Your task to perform on an android device: find snoozed emails in the gmail app Image 0: 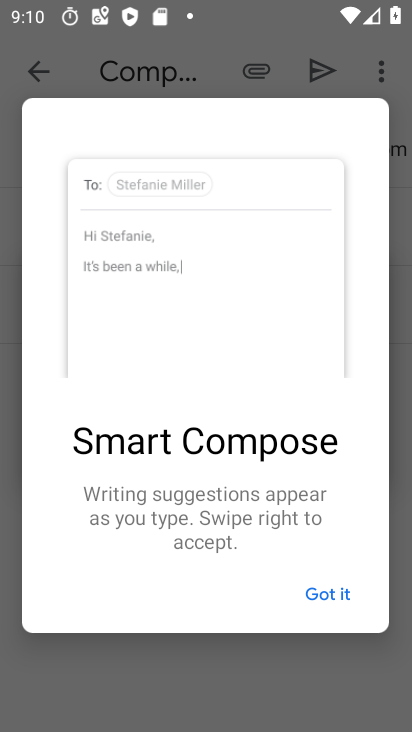
Step 0: press home button
Your task to perform on an android device: find snoozed emails in the gmail app Image 1: 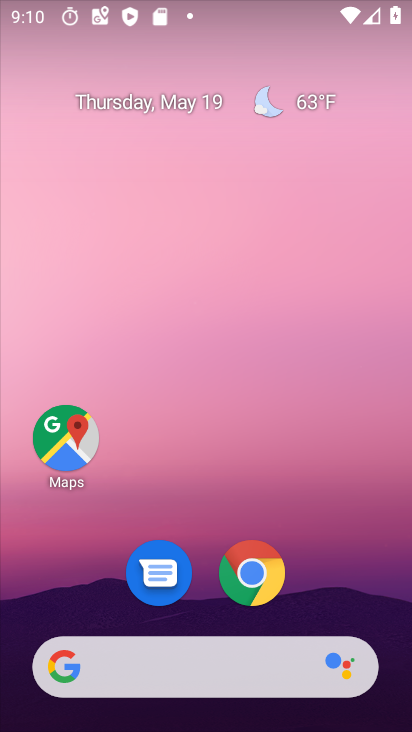
Step 1: drag from (316, 623) to (313, 14)
Your task to perform on an android device: find snoozed emails in the gmail app Image 2: 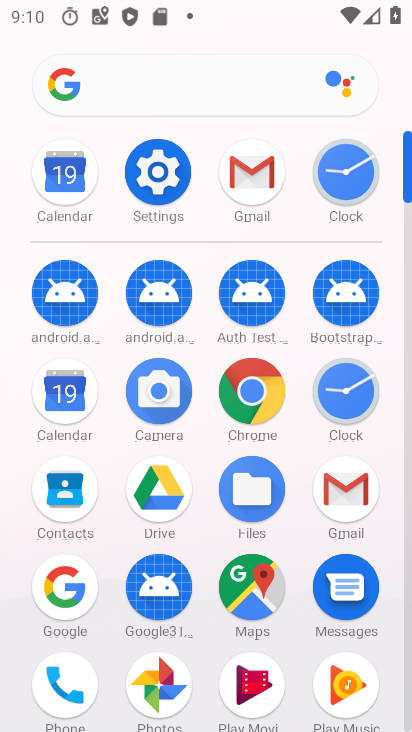
Step 2: click (250, 183)
Your task to perform on an android device: find snoozed emails in the gmail app Image 3: 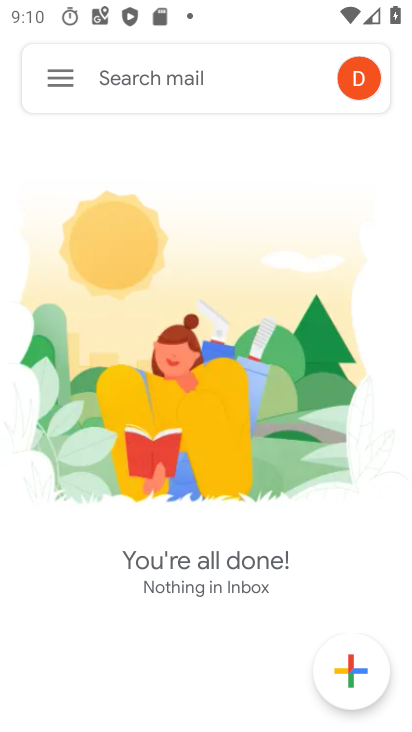
Step 3: click (71, 82)
Your task to perform on an android device: find snoozed emails in the gmail app Image 4: 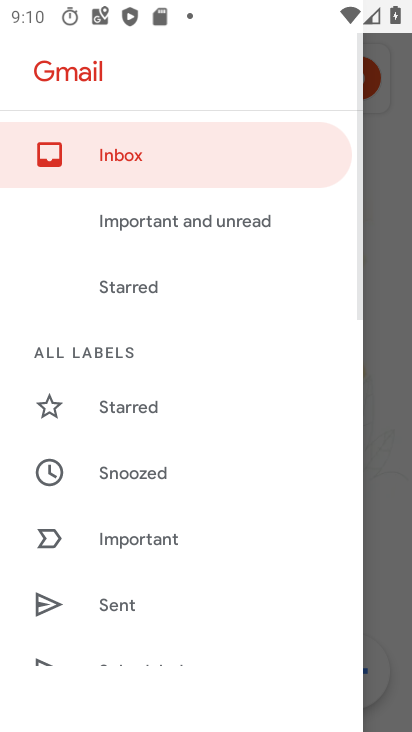
Step 4: click (144, 472)
Your task to perform on an android device: find snoozed emails in the gmail app Image 5: 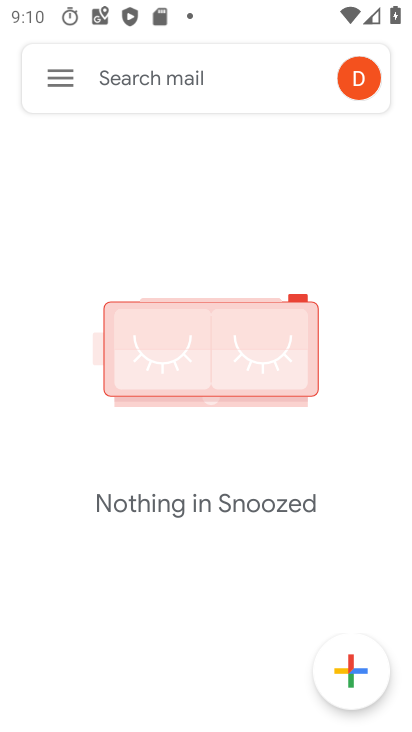
Step 5: task complete